Your task to perform on an android device: turn on notifications settings in the gmail app Image 0: 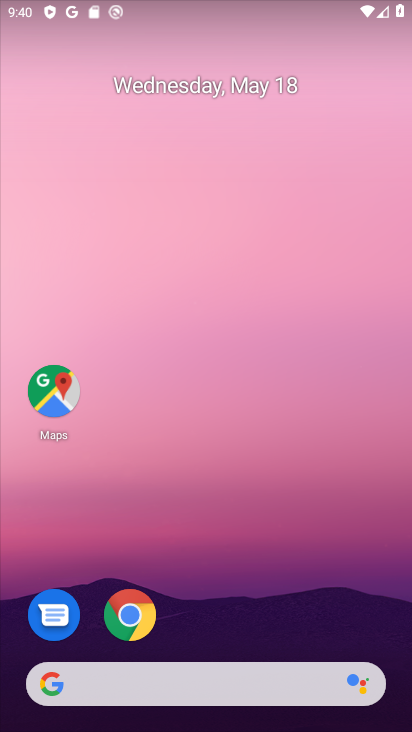
Step 0: drag from (321, 613) to (286, 97)
Your task to perform on an android device: turn on notifications settings in the gmail app Image 1: 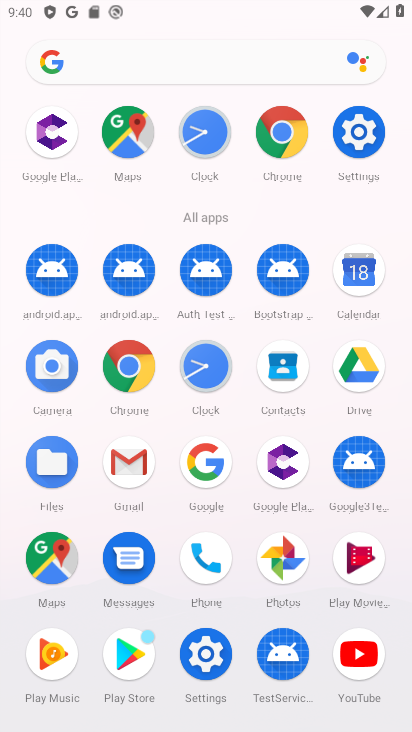
Step 1: click (120, 464)
Your task to perform on an android device: turn on notifications settings in the gmail app Image 2: 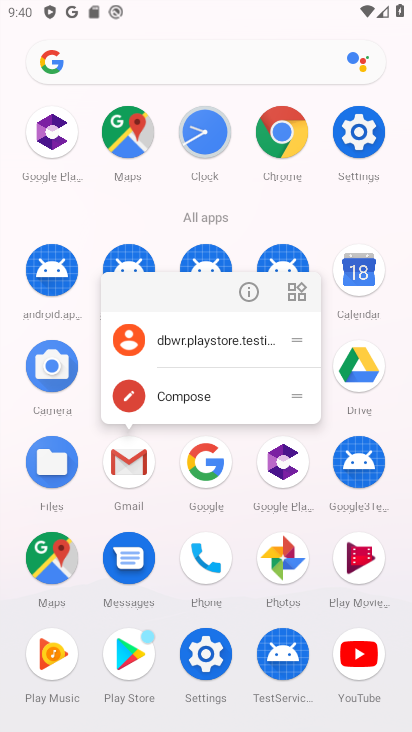
Step 2: click (249, 288)
Your task to perform on an android device: turn on notifications settings in the gmail app Image 3: 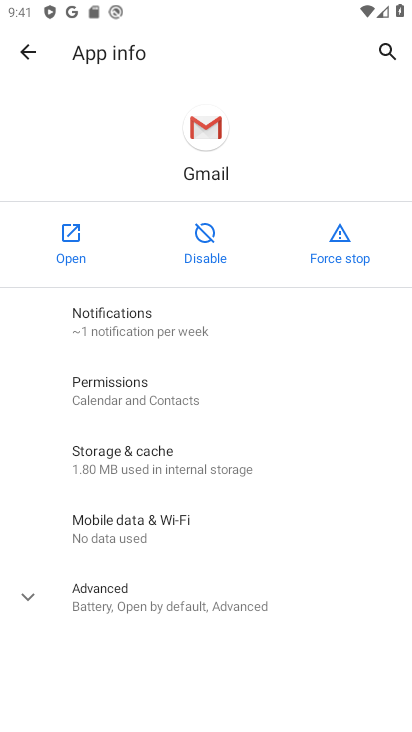
Step 3: click (213, 337)
Your task to perform on an android device: turn on notifications settings in the gmail app Image 4: 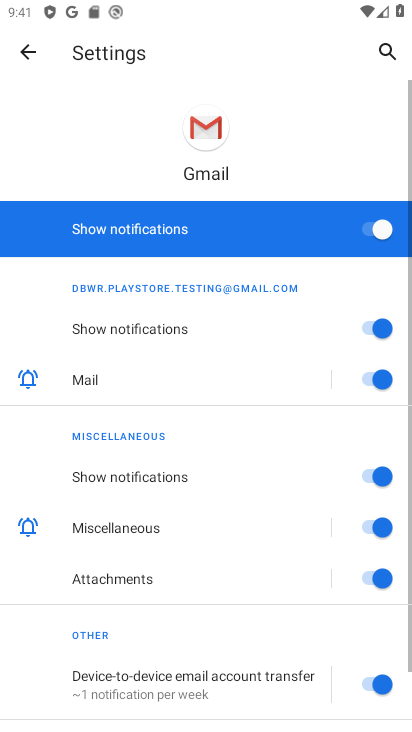
Step 4: task complete